Your task to perform on an android device: Open settings Image 0: 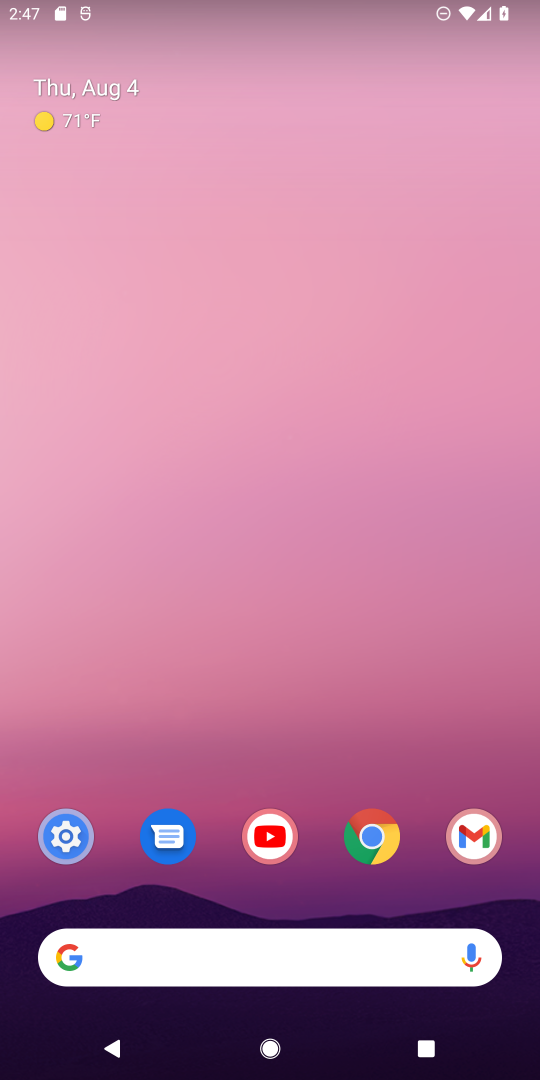
Step 0: click (73, 852)
Your task to perform on an android device: Open settings Image 1: 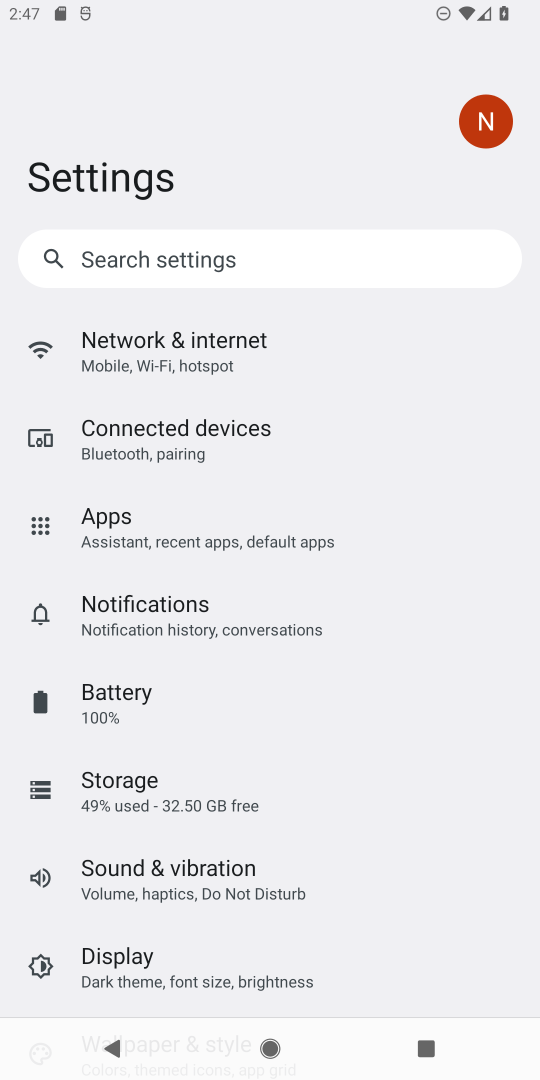
Step 1: task complete